Your task to perform on an android device: open wifi settings Image 0: 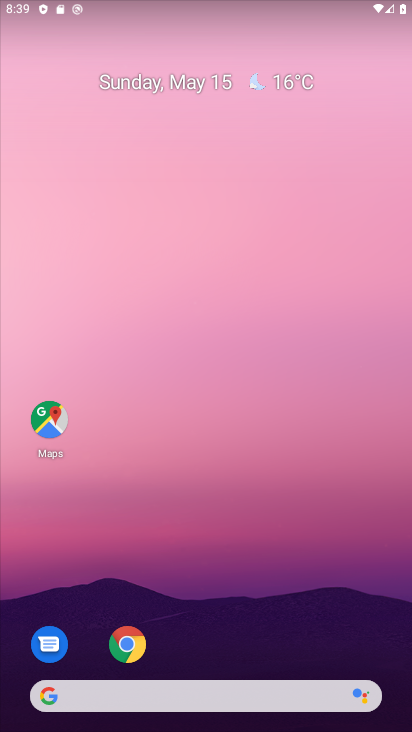
Step 0: drag from (107, 18) to (127, 531)
Your task to perform on an android device: open wifi settings Image 1: 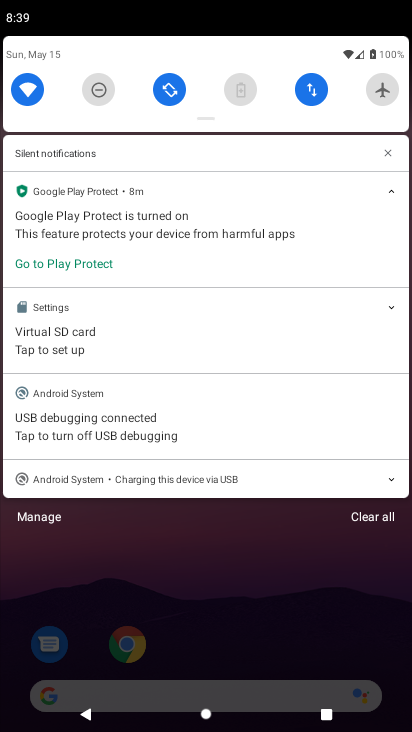
Step 1: click (15, 87)
Your task to perform on an android device: open wifi settings Image 2: 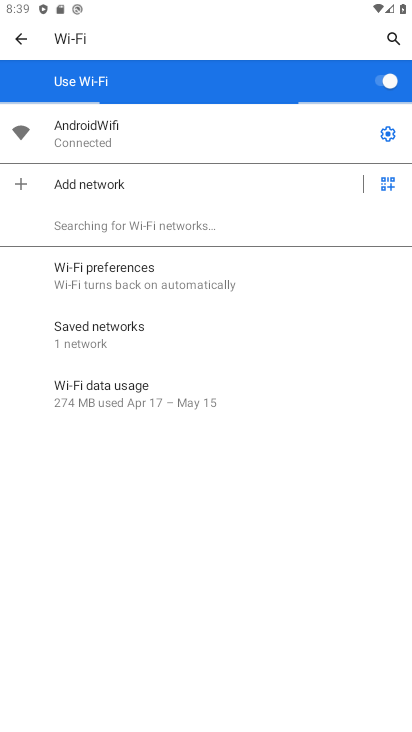
Step 2: task complete